Your task to perform on an android device: turn on improve location accuracy Image 0: 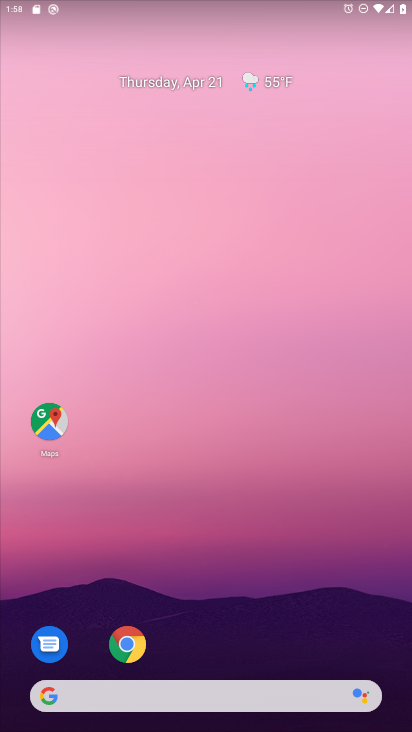
Step 0: drag from (288, 592) to (237, 107)
Your task to perform on an android device: turn on improve location accuracy Image 1: 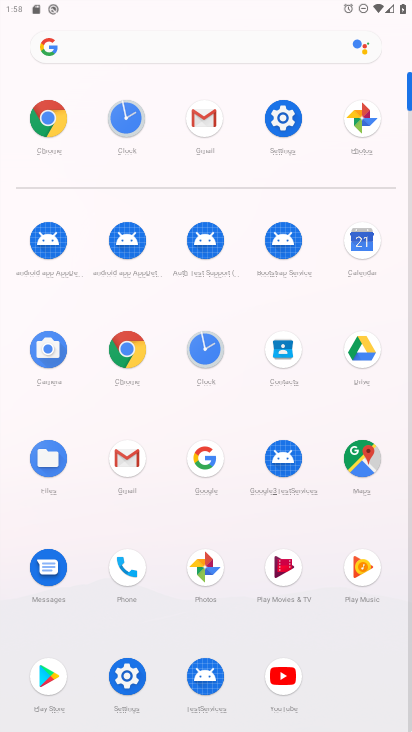
Step 1: click (290, 119)
Your task to perform on an android device: turn on improve location accuracy Image 2: 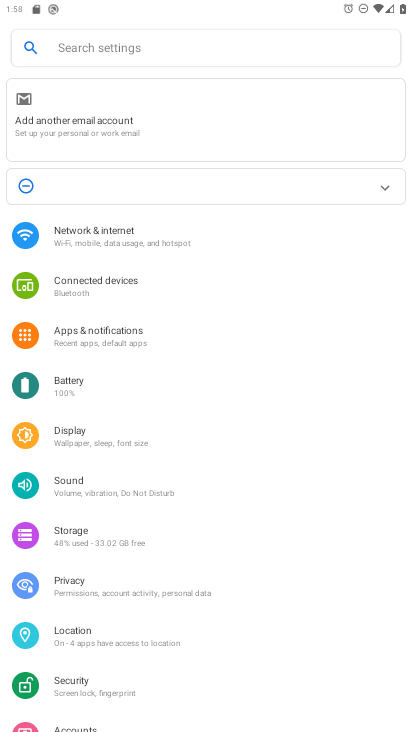
Step 2: click (192, 633)
Your task to perform on an android device: turn on improve location accuracy Image 3: 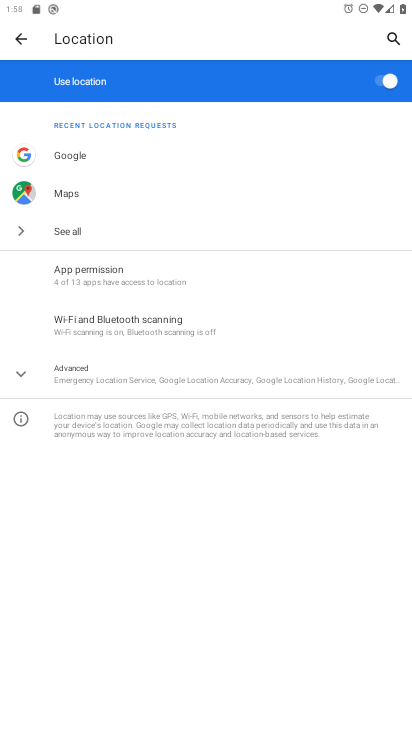
Step 3: click (224, 377)
Your task to perform on an android device: turn on improve location accuracy Image 4: 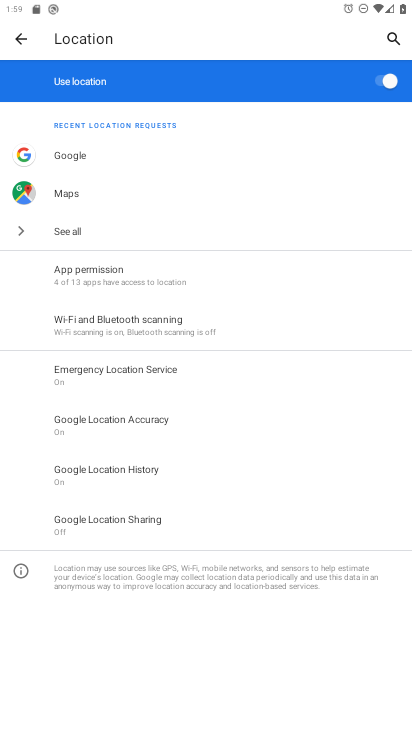
Step 4: click (217, 427)
Your task to perform on an android device: turn on improve location accuracy Image 5: 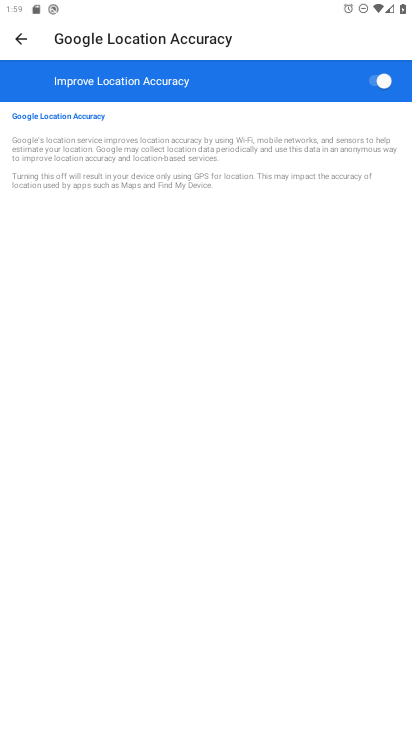
Step 5: task complete